Your task to perform on an android device: uninstall "Microsoft Excel" Image 0: 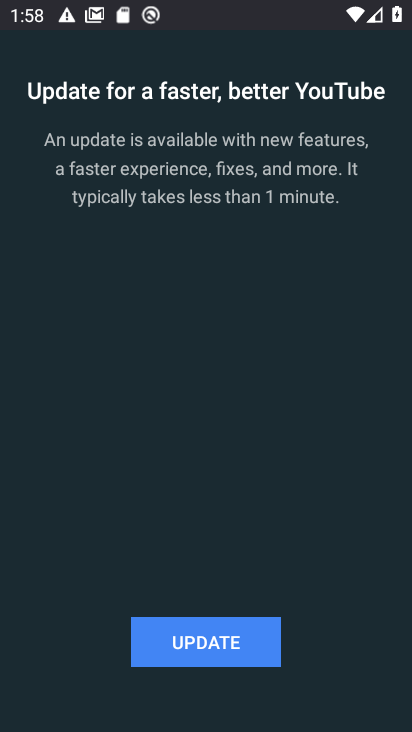
Step 0: press home button
Your task to perform on an android device: uninstall "Microsoft Excel" Image 1: 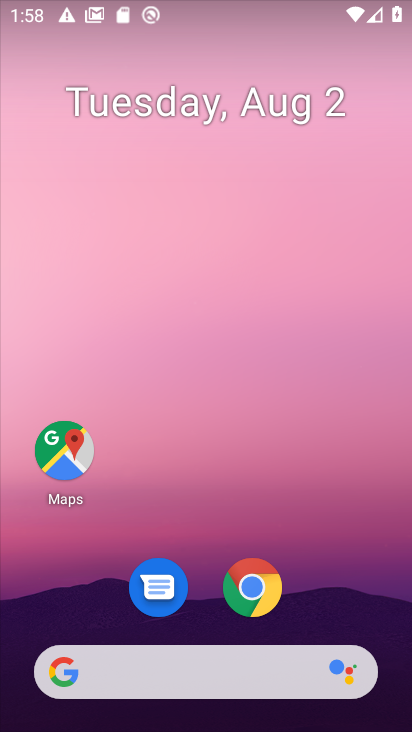
Step 1: drag from (203, 551) to (215, 149)
Your task to perform on an android device: uninstall "Microsoft Excel" Image 2: 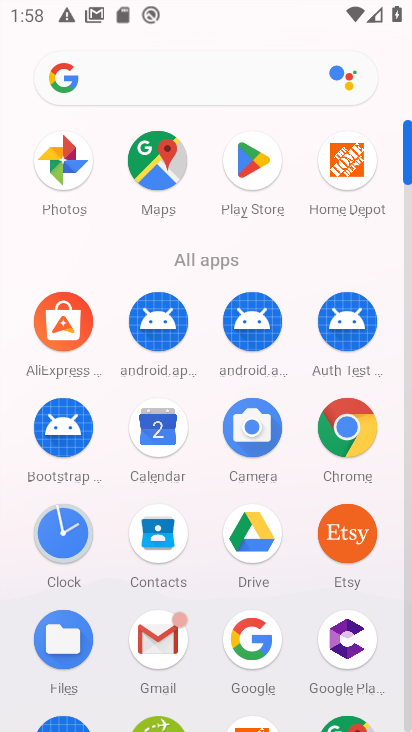
Step 2: click (238, 172)
Your task to perform on an android device: uninstall "Microsoft Excel" Image 3: 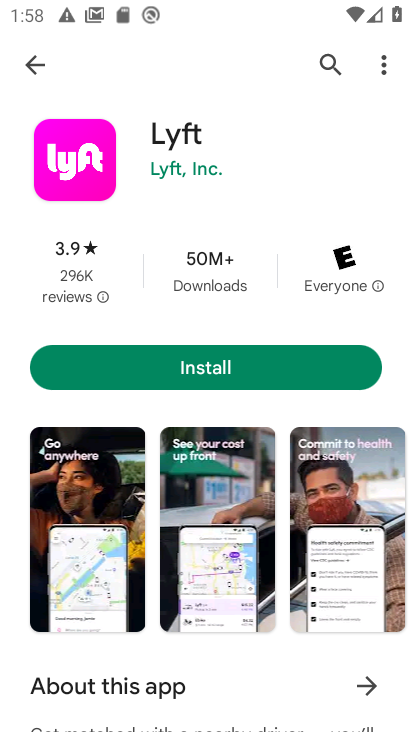
Step 3: click (317, 72)
Your task to perform on an android device: uninstall "Microsoft Excel" Image 4: 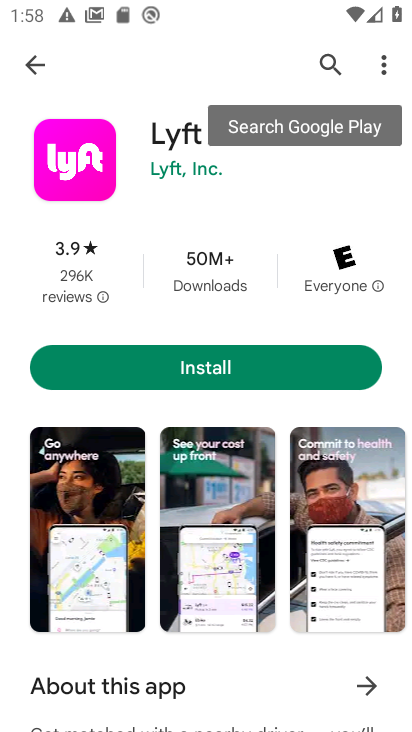
Step 4: click (335, 66)
Your task to perform on an android device: uninstall "Microsoft Excel" Image 5: 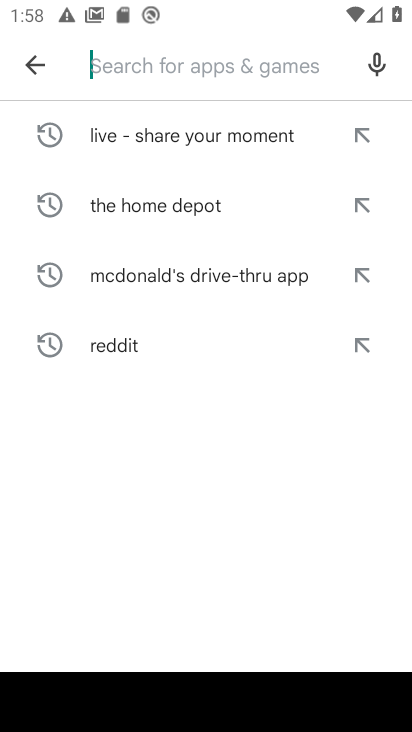
Step 5: type "Microsoft Excel"
Your task to perform on an android device: uninstall "Microsoft Excel" Image 6: 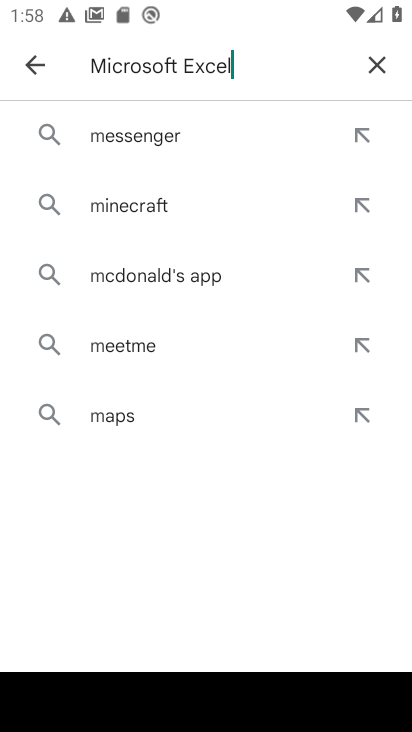
Step 6: type ""
Your task to perform on an android device: uninstall "Microsoft Excel" Image 7: 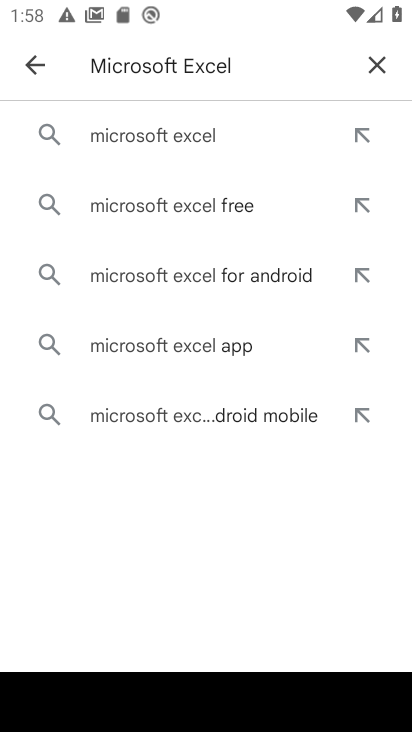
Step 7: click (247, 124)
Your task to perform on an android device: uninstall "Microsoft Excel" Image 8: 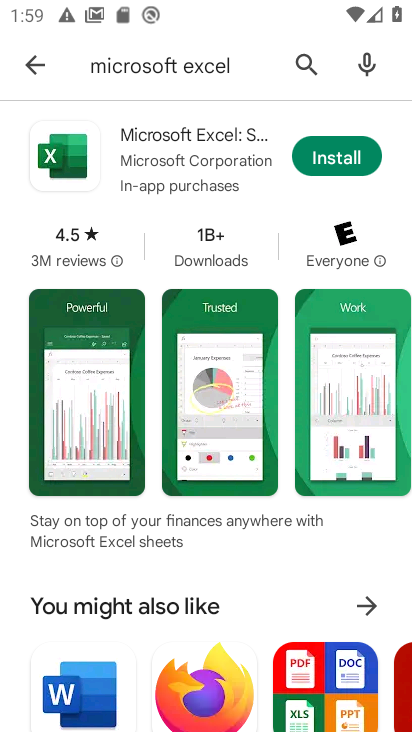
Step 8: task complete